Your task to perform on an android device: Search for Italian restaurants on Maps Image 0: 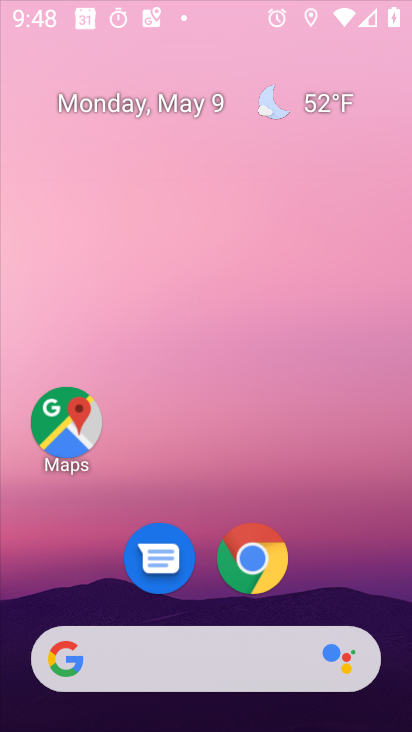
Step 0: click (259, 549)
Your task to perform on an android device: Search for Italian restaurants on Maps Image 1: 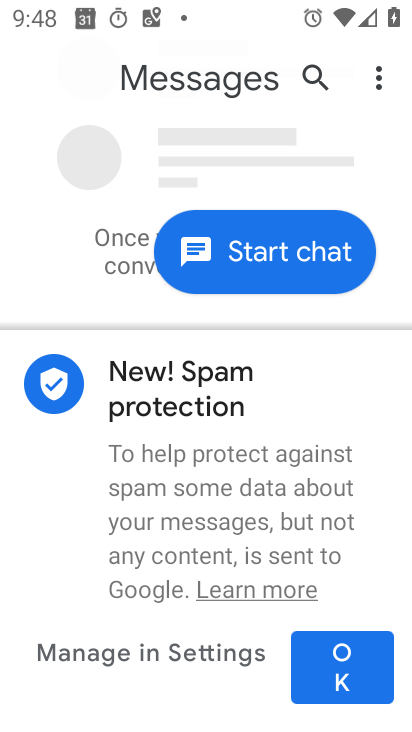
Step 1: press back button
Your task to perform on an android device: Search for Italian restaurants on Maps Image 2: 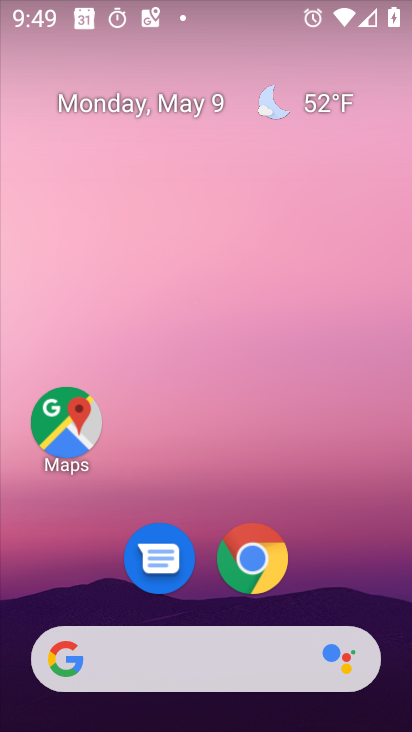
Step 2: click (52, 402)
Your task to perform on an android device: Search for Italian restaurants on Maps Image 3: 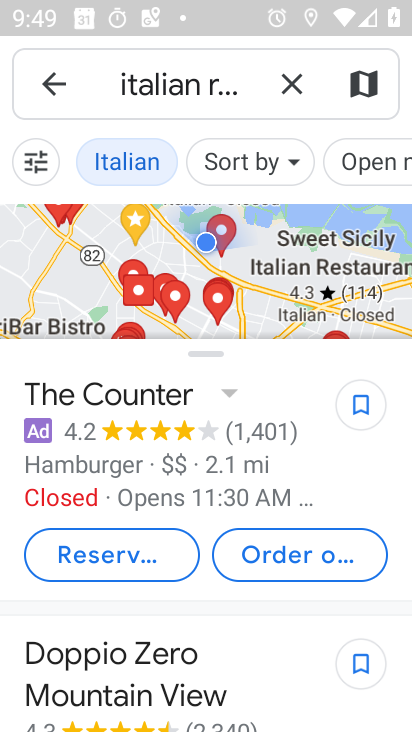
Step 3: task complete